Your task to perform on an android device: Search for sushi restaurants on Maps Image 0: 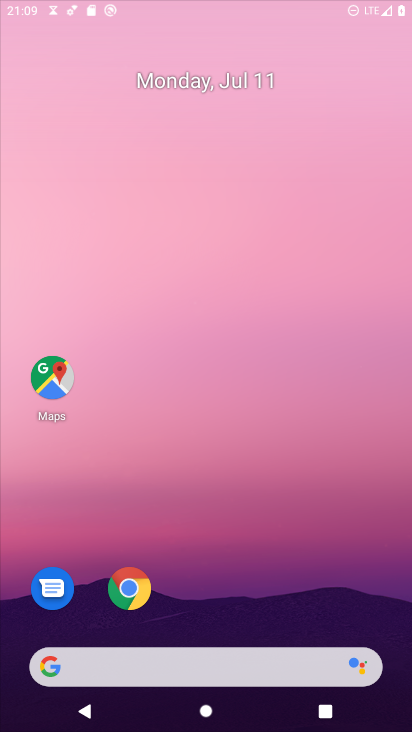
Step 0: press home button
Your task to perform on an android device: Search for sushi restaurants on Maps Image 1: 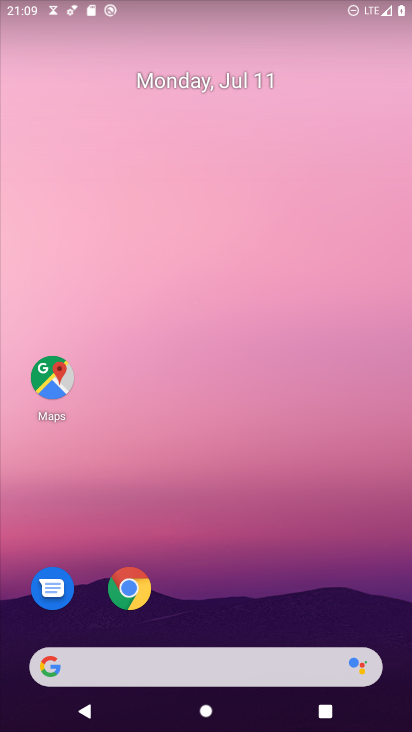
Step 1: drag from (249, 630) to (216, 35)
Your task to perform on an android device: Search for sushi restaurants on Maps Image 2: 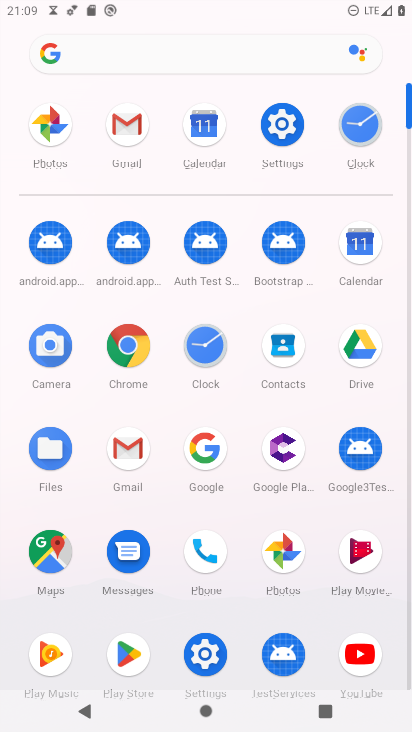
Step 2: click (53, 560)
Your task to perform on an android device: Search for sushi restaurants on Maps Image 3: 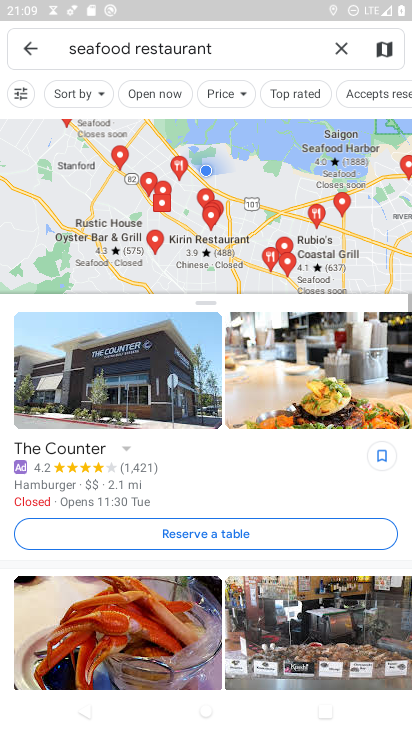
Step 3: press back button
Your task to perform on an android device: Search for sushi restaurants on Maps Image 4: 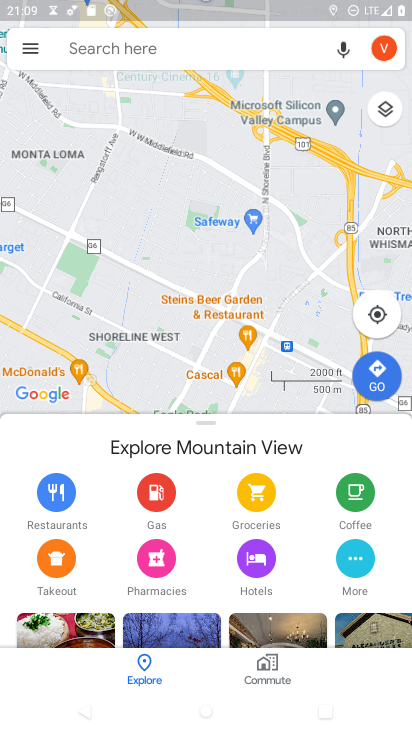
Step 4: click (160, 55)
Your task to perform on an android device: Search for sushi restaurants on Maps Image 5: 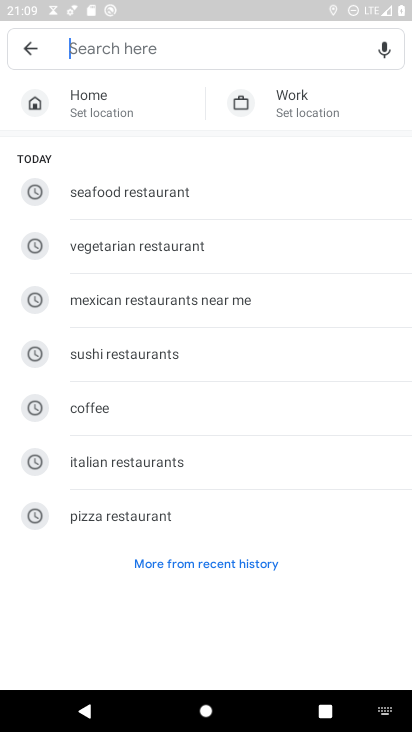
Step 5: click (152, 360)
Your task to perform on an android device: Search for sushi restaurants on Maps Image 6: 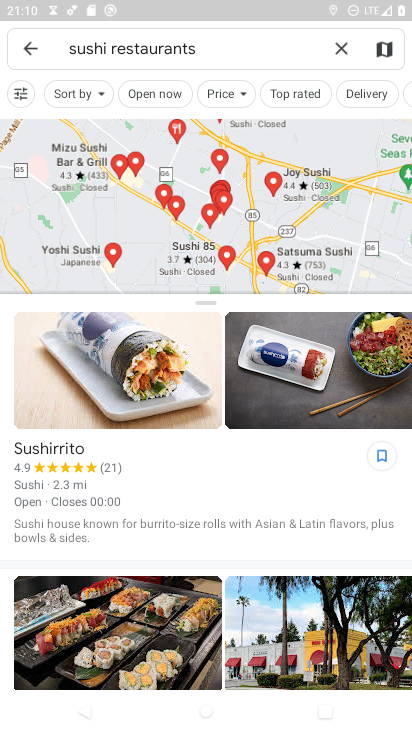
Step 6: task complete